Your task to perform on an android device: turn on airplane mode Image 0: 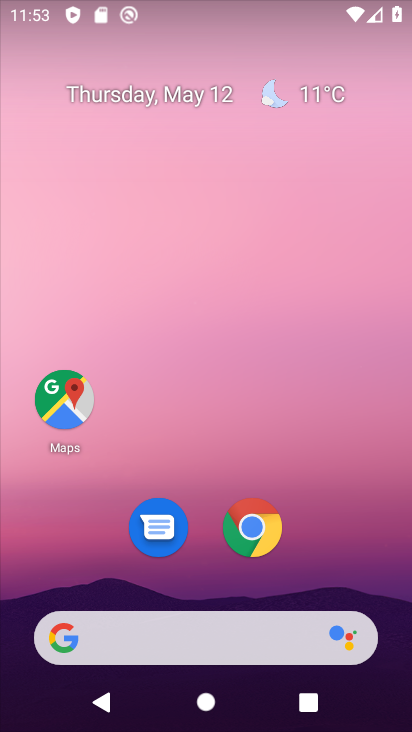
Step 0: drag from (332, 51) to (365, 584)
Your task to perform on an android device: turn on airplane mode Image 1: 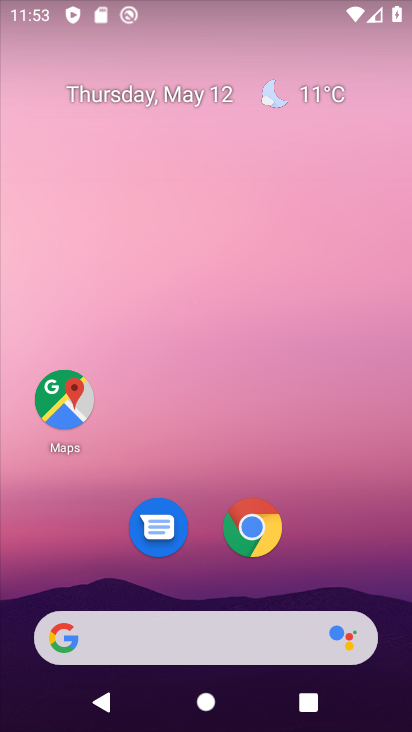
Step 1: drag from (207, 7) to (330, 617)
Your task to perform on an android device: turn on airplane mode Image 2: 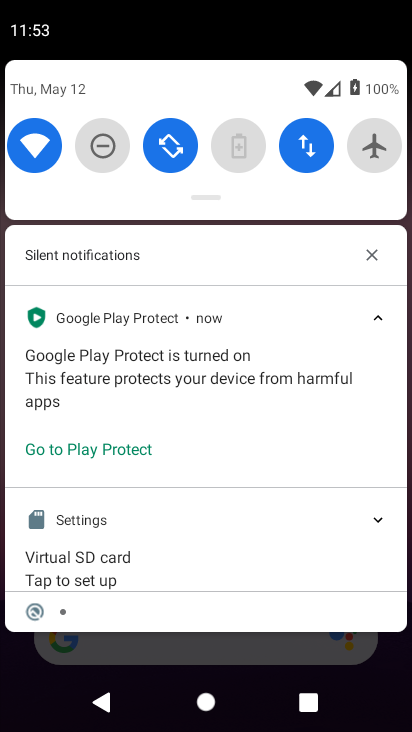
Step 2: click (380, 127)
Your task to perform on an android device: turn on airplane mode Image 3: 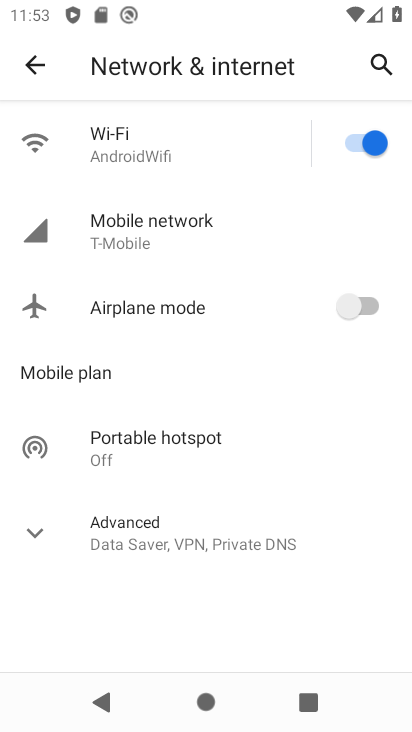
Step 3: click (356, 306)
Your task to perform on an android device: turn on airplane mode Image 4: 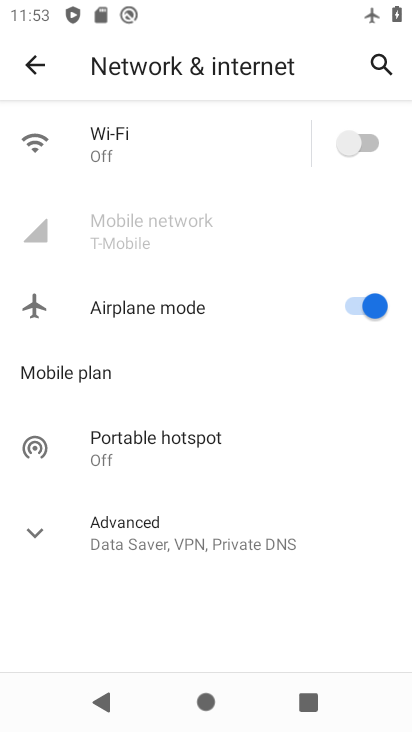
Step 4: task complete